Your task to perform on an android device: open a bookmark in the chrome app Image 0: 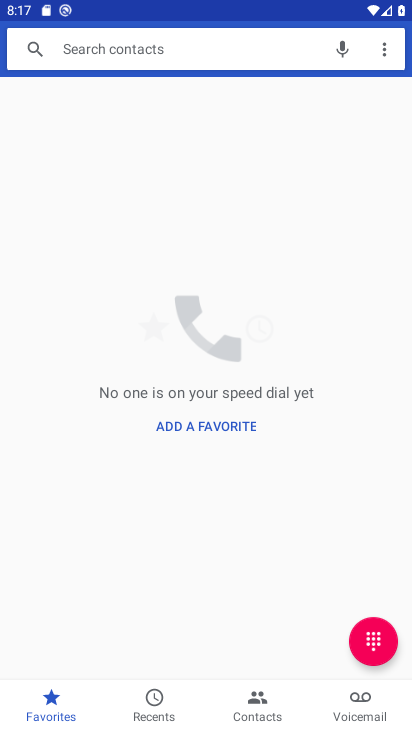
Step 0: press home button
Your task to perform on an android device: open a bookmark in the chrome app Image 1: 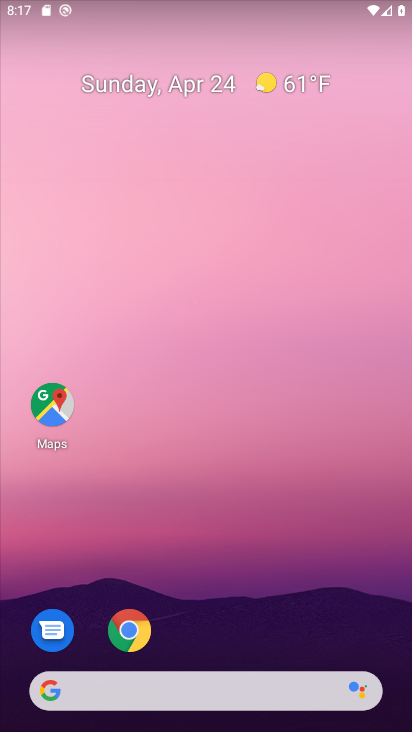
Step 1: drag from (362, 614) to (367, 76)
Your task to perform on an android device: open a bookmark in the chrome app Image 2: 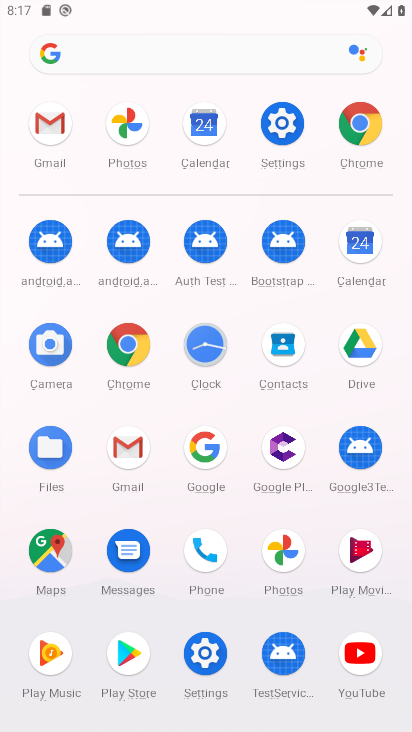
Step 2: click (366, 132)
Your task to perform on an android device: open a bookmark in the chrome app Image 3: 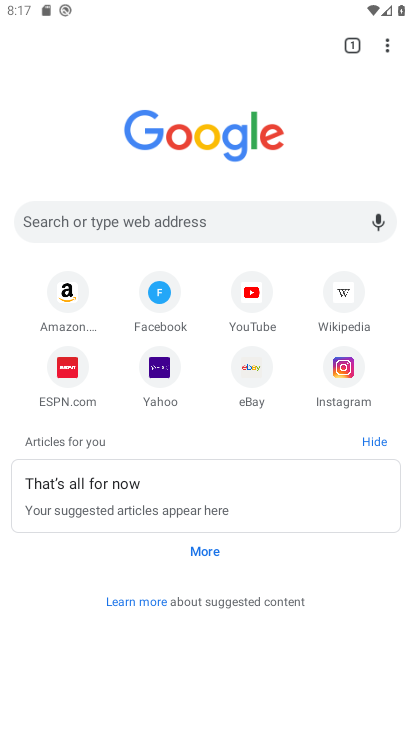
Step 3: click (383, 41)
Your task to perform on an android device: open a bookmark in the chrome app Image 4: 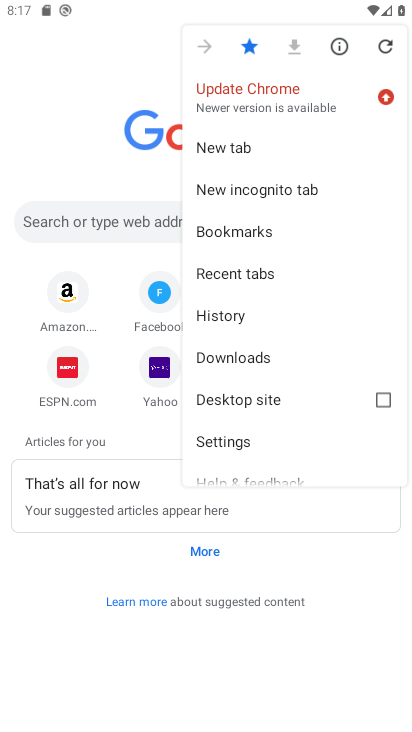
Step 4: click (270, 225)
Your task to perform on an android device: open a bookmark in the chrome app Image 5: 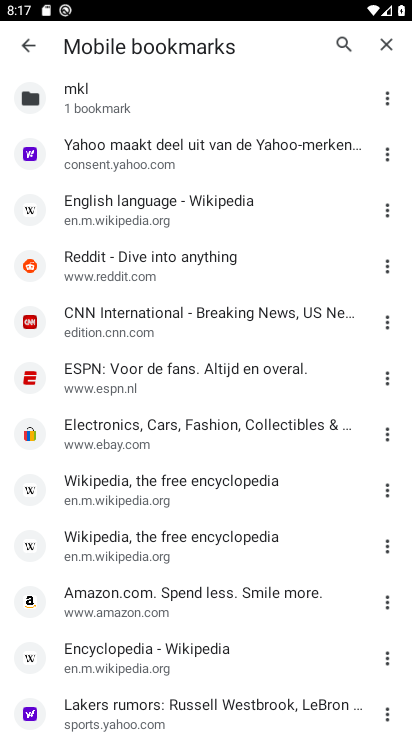
Step 5: click (228, 150)
Your task to perform on an android device: open a bookmark in the chrome app Image 6: 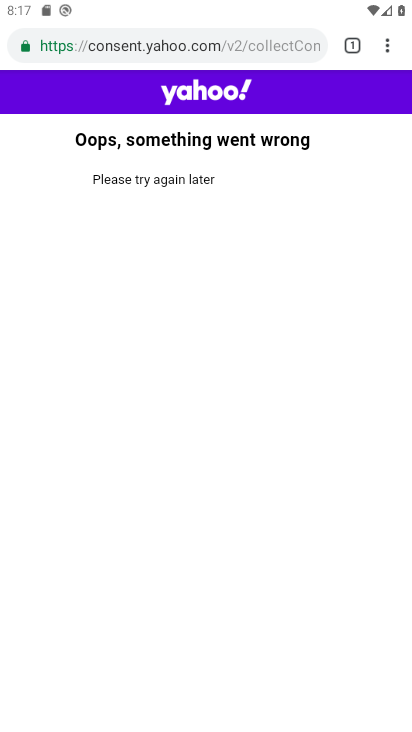
Step 6: task complete